Your task to perform on an android device: change the clock display to analog Image 0: 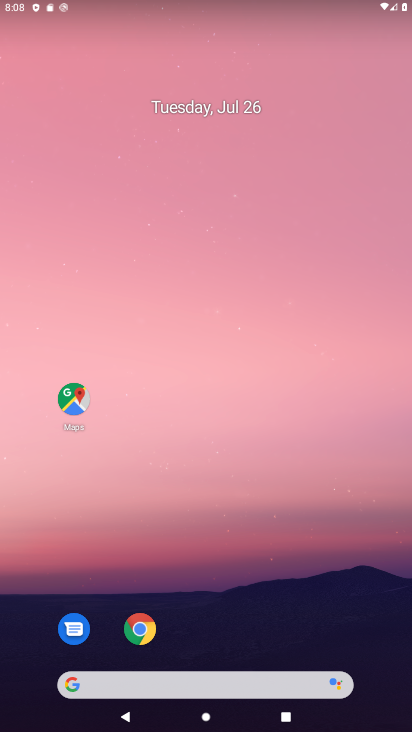
Step 0: drag from (206, 625) to (159, 162)
Your task to perform on an android device: change the clock display to analog Image 1: 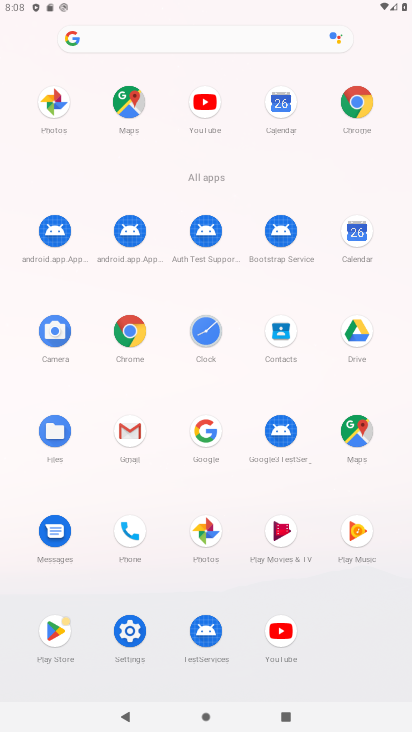
Step 1: click (205, 336)
Your task to perform on an android device: change the clock display to analog Image 2: 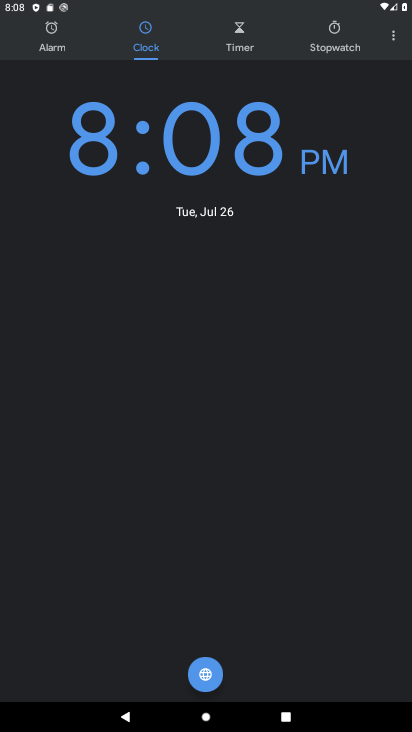
Step 2: click (391, 38)
Your task to perform on an android device: change the clock display to analog Image 3: 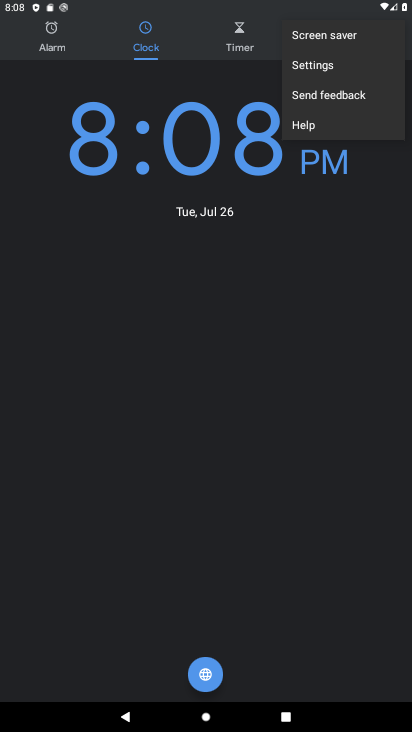
Step 3: click (314, 69)
Your task to perform on an android device: change the clock display to analog Image 4: 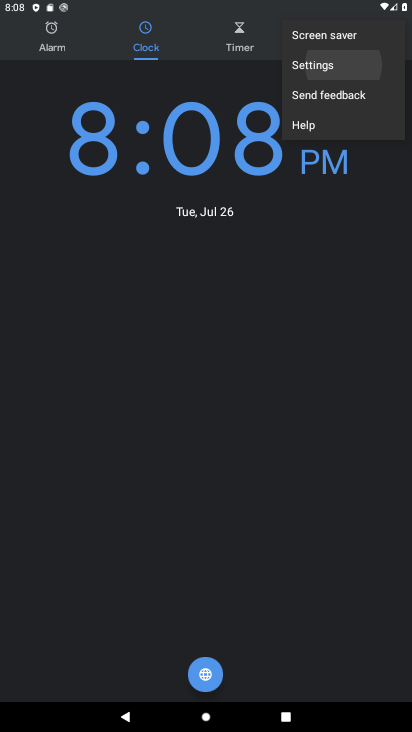
Step 4: click (314, 69)
Your task to perform on an android device: change the clock display to analog Image 5: 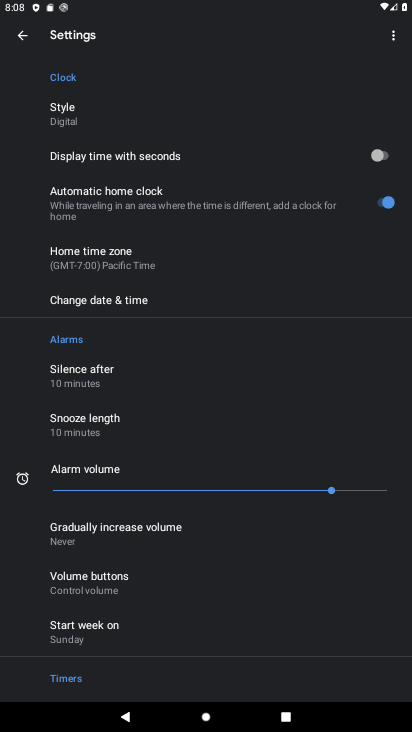
Step 5: click (69, 119)
Your task to perform on an android device: change the clock display to analog Image 6: 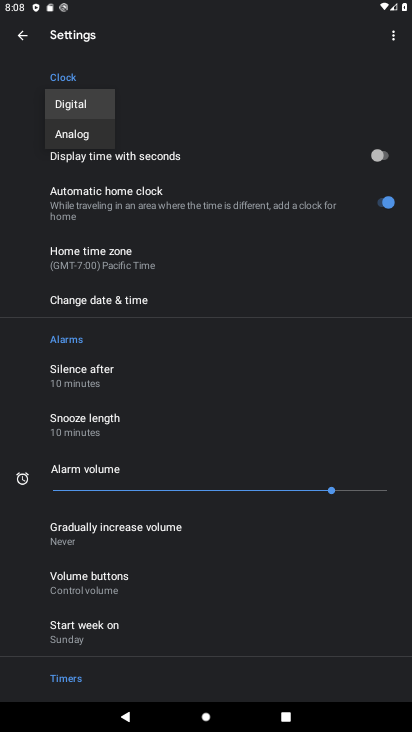
Step 6: click (70, 141)
Your task to perform on an android device: change the clock display to analog Image 7: 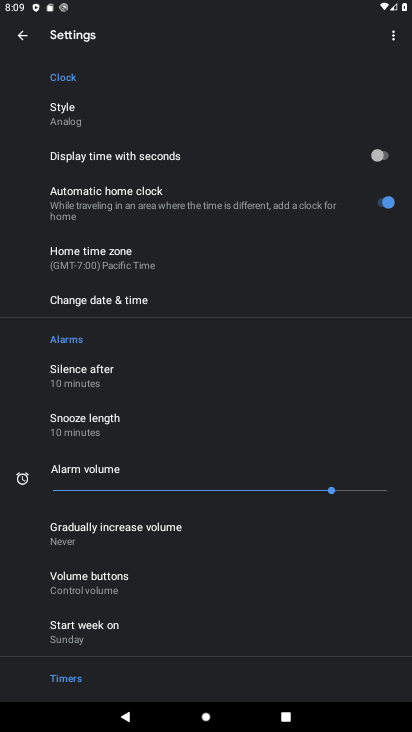
Step 7: task complete